Your task to perform on an android device: Open the map Image 0: 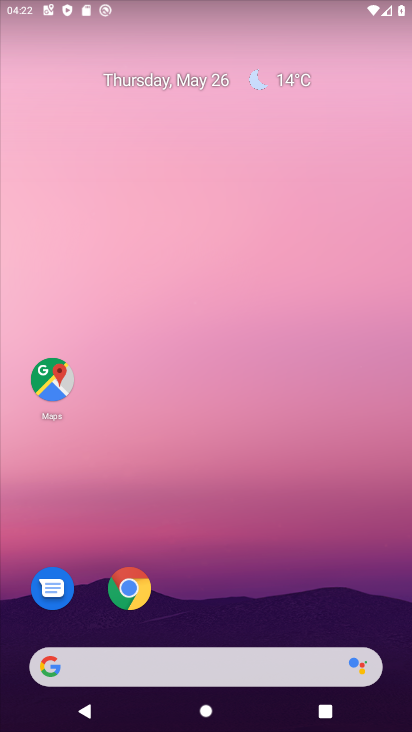
Step 0: click (67, 399)
Your task to perform on an android device: Open the map Image 1: 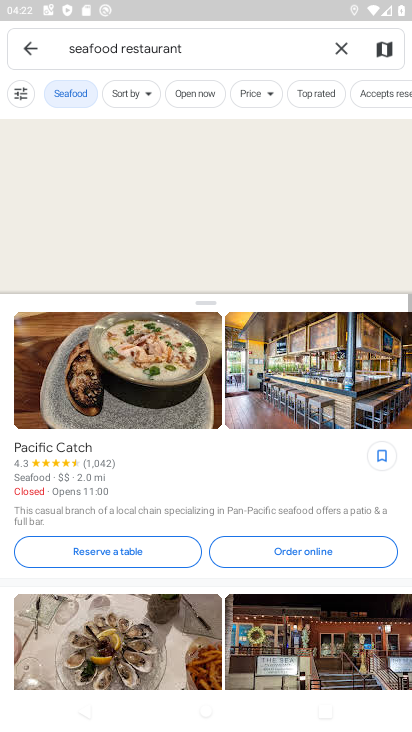
Step 1: task complete